Your task to perform on an android device: Open calendar and show me the third week of next month Image 0: 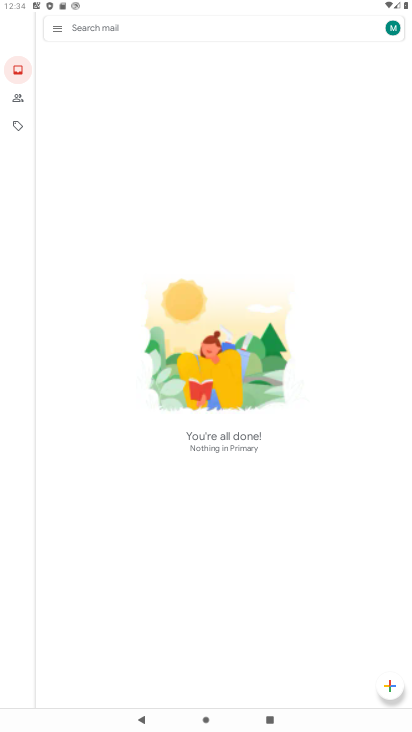
Step 0: press home button
Your task to perform on an android device: Open calendar and show me the third week of next month Image 1: 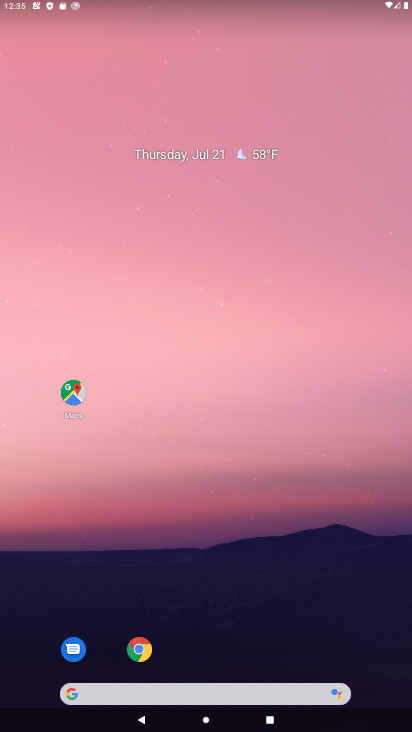
Step 1: drag from (356, 651) to (307, 91)
Your task to perform on an android device: Open calendar and show me the third week of next month Image 2: 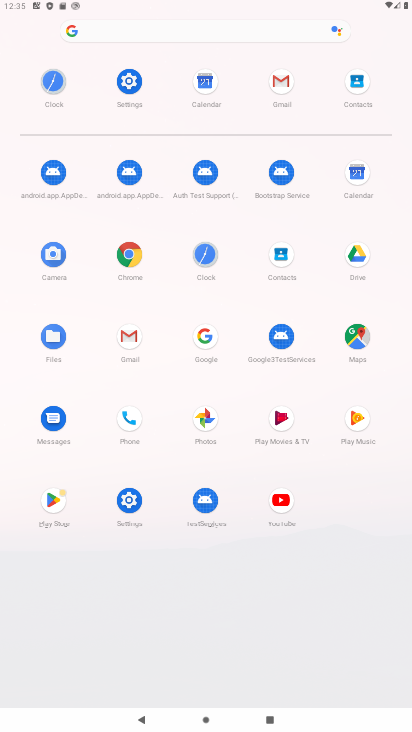
Step 2: click (357, 172)
Your task to perform on an android device: Open calendar and show me the third week of next month Image 3: 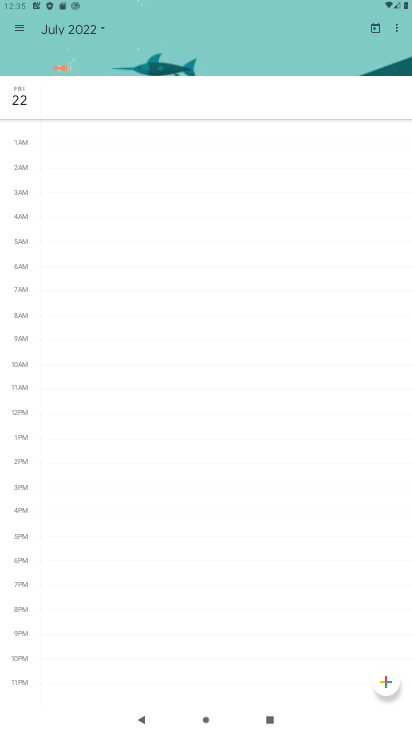
Step 3: click (15, 31)
Your task to perform on an android device: Open calendar and show me the third week of next month Image 4: 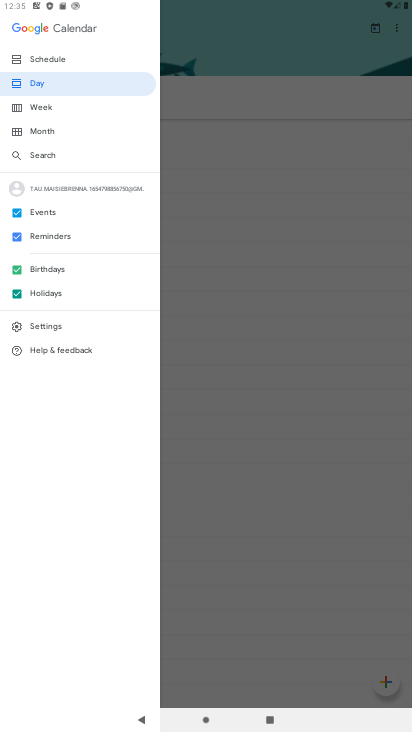
Step 4: click (35, 106)
Your task to perform on an android device: Open calendar and show me the third week of next month Image 5: 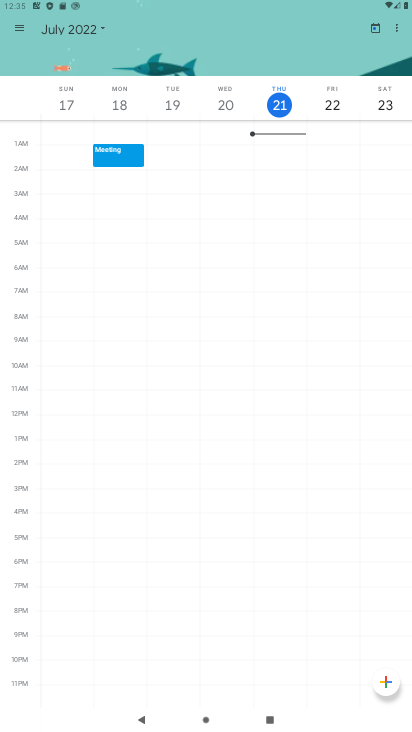
Step 5: click (99, 27)
Your task to perform on an android device: Open calendar and show me the third week of next month Image 6: 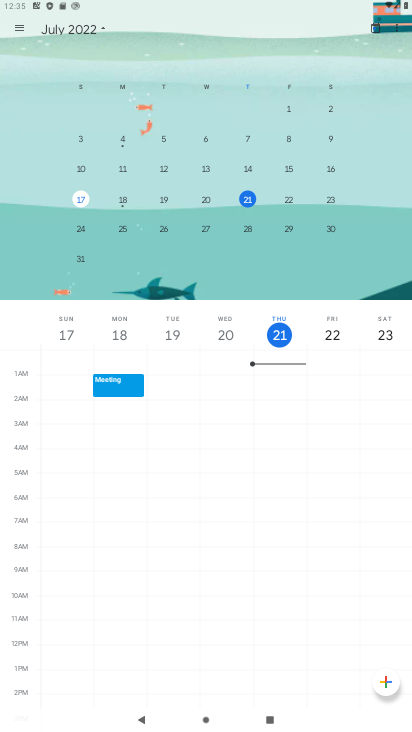
Step 6: drag from (335, 200) to (0, 190)
Your task to perform on an android device: Open calendar and show me the third week of next month Image 7: 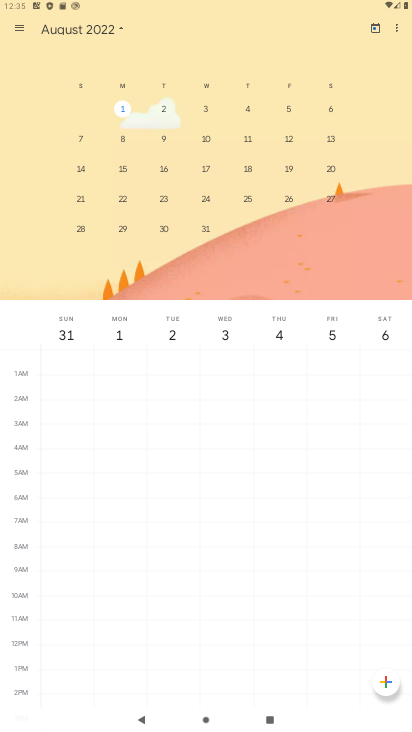
Step 7: click (76, 200)
Your task to perform on an android device: Open calendar and show me the third week of next month Image 8: 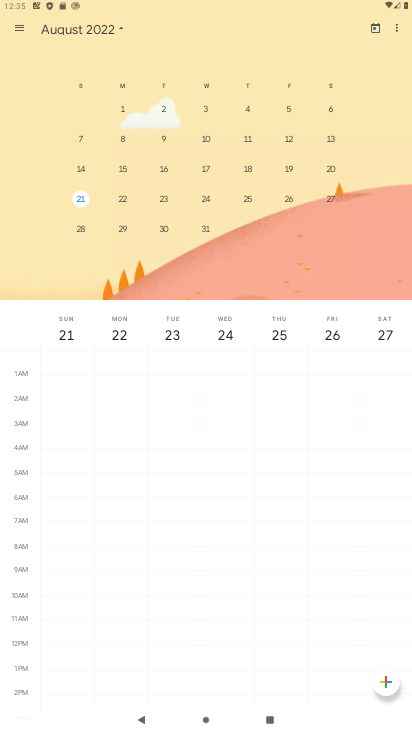
Step 8: task complete